Your task to perform on an android device: Open calendar and show me the second week of next month Image 0: 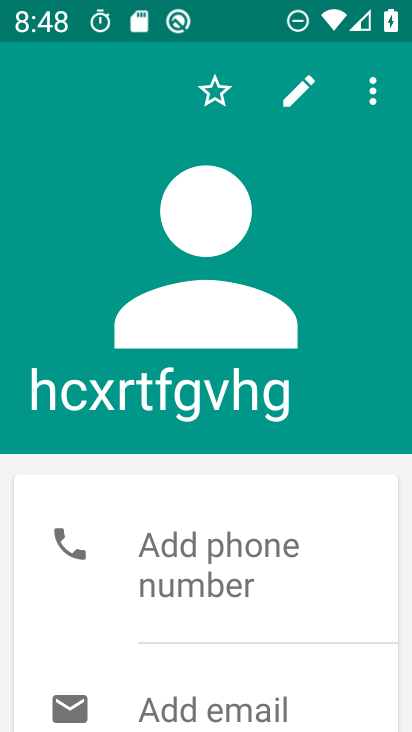
Step 0: press home button
Your task to perform on an android device: Open calendar and show me the second week of next month Image 1: 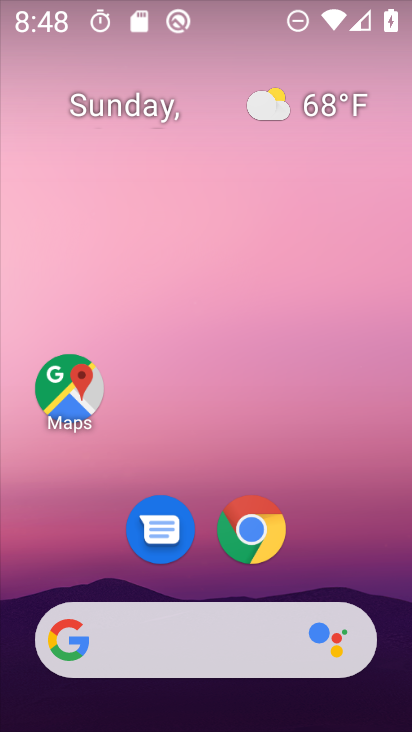
Step 1: drag from (211, 566) to (249, 87)
Your task to perform on an android device: Open calendar and show me the second week of next month Image 2: 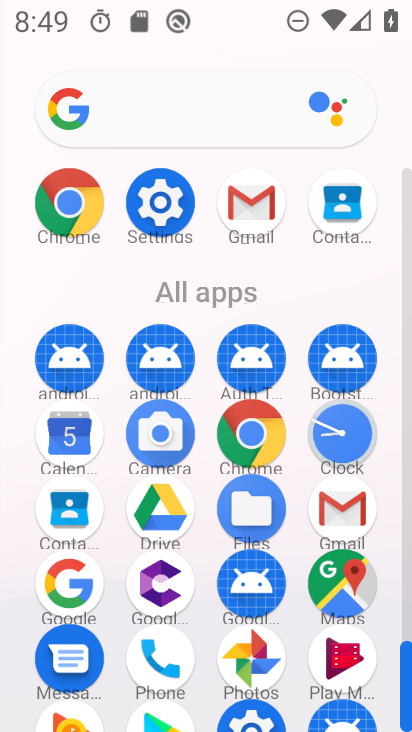
Step 2: click (69, 436)
Your task to perform on an android device: Open calendar and show me the second week of next month Image 3: 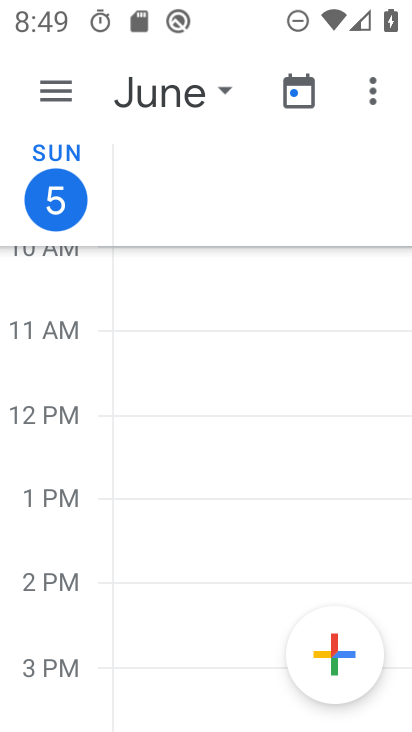
Step 3: click (220, 93)
Your task to perform on an android device: Open calendar and show me the second week of next month Image 4: 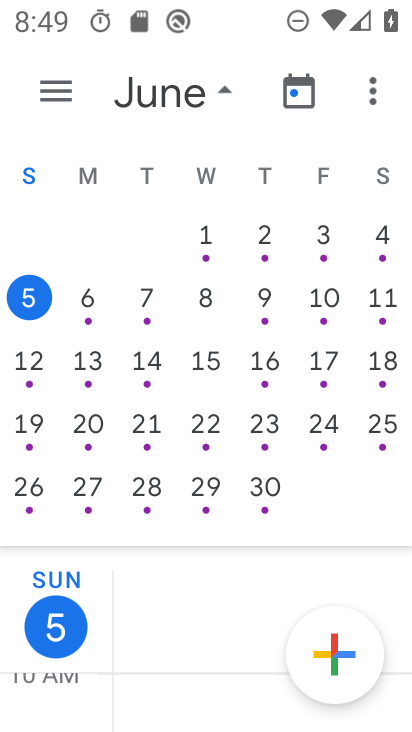
Step 4: drag from (382, 397) to (56, 409)
Your task to perform on an android device: Open calendar and show me the second week of next month Image 5: 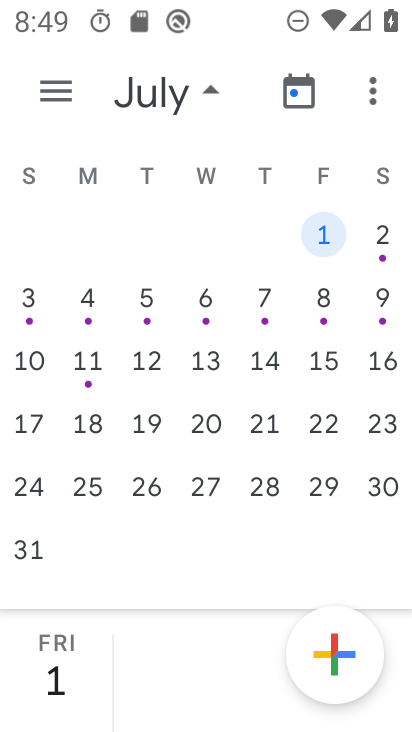
Step 5: click (29, 361)
Your task to perform on an android device: Open calendar and show me the second week of next month Image 6: 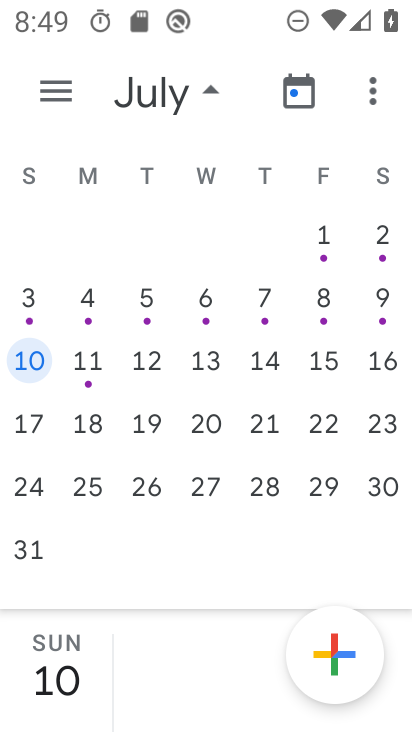
Step 6: click (211, 85)
Your task to perform on an android device: Open calendar and show me the second week of next month Image 7: 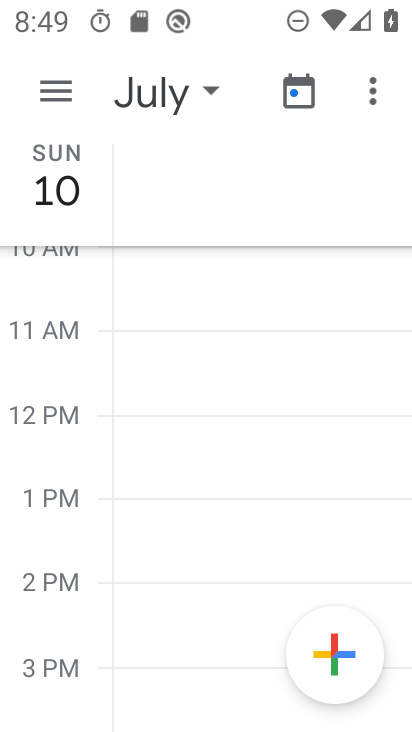
Step 7: click (74, 209)
Your task to perform on an android device: Open calendar and show me the second week of next month Image 8: 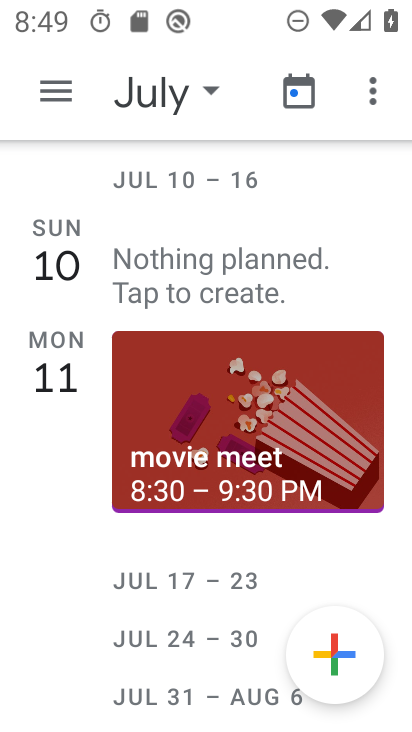
Step 8: task complete